Your task to perform on an android device: toggle pop-ups in chrome Image 0: 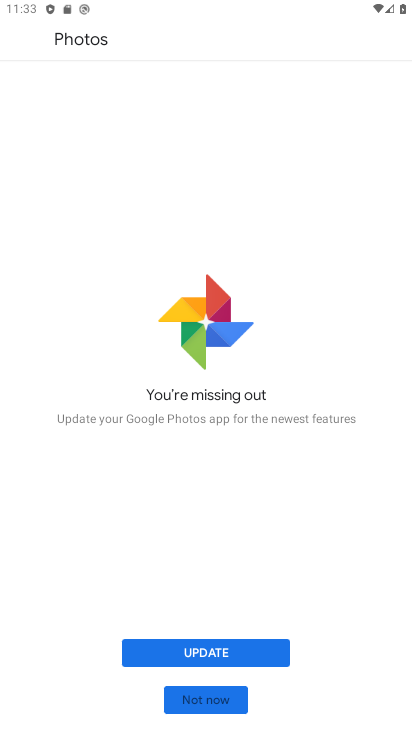
Step 0: press home button
Your task to perform on an android device: toggle pop-ups in chrome Image 1: 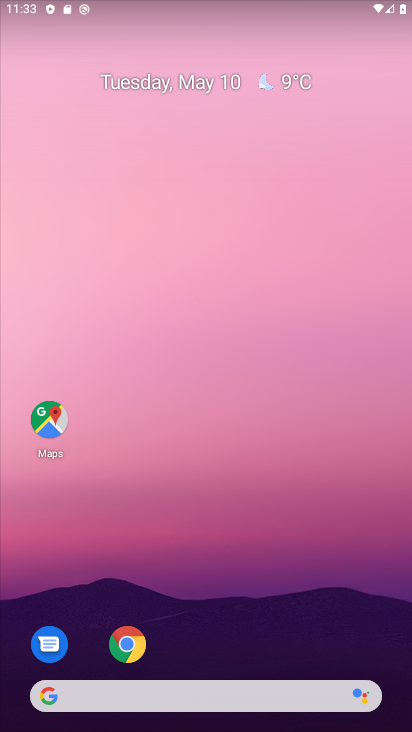
Step 1: click (134, 640)
Your task to perform on an android device: toggle pop-ups in chrome Image 2: 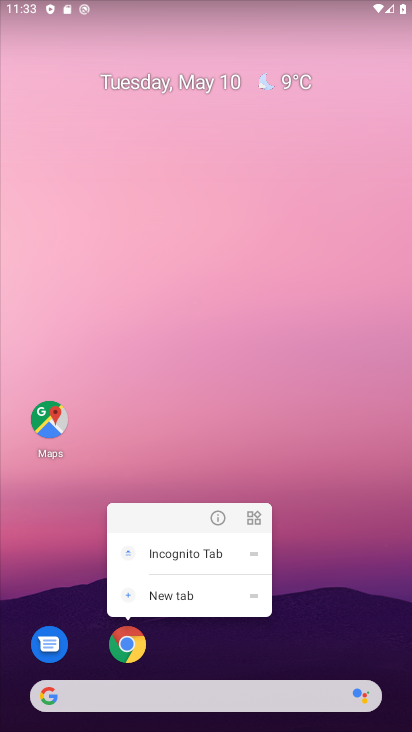
Step 2: click (142, 646)
Your task to perform on an android device: toggle pop-ups in chrome Image 3: 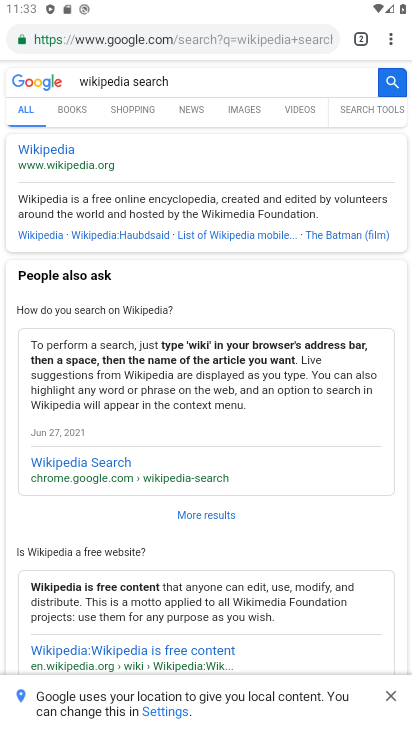
Step 3: click (392, 38)
Your task to perform on an android device: toggle pop-ups in chrome Image 4: 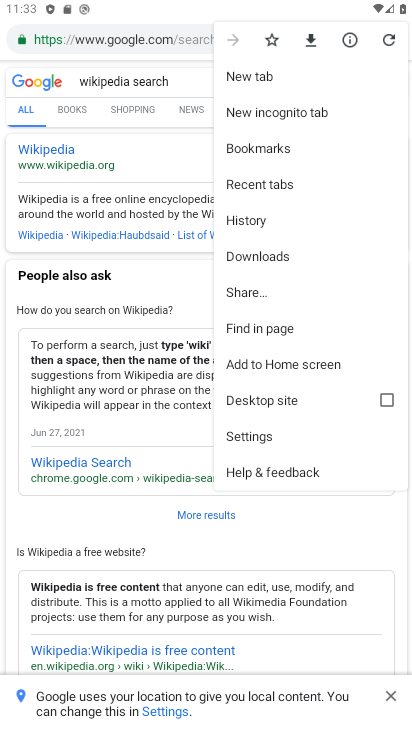
Step 4: click (257, 440)
Your task to perform on an android device: toggle pop-ups in chrome Image 5: 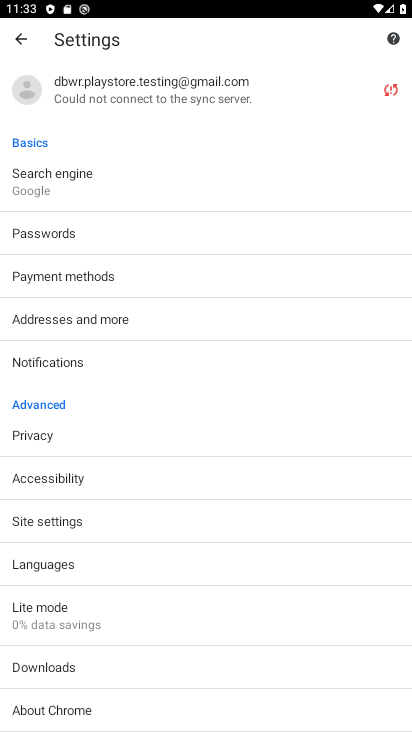
Step 5: click (72, 524)
Your task to perform on an android device: toggle pop-ups in chrome Image 6: 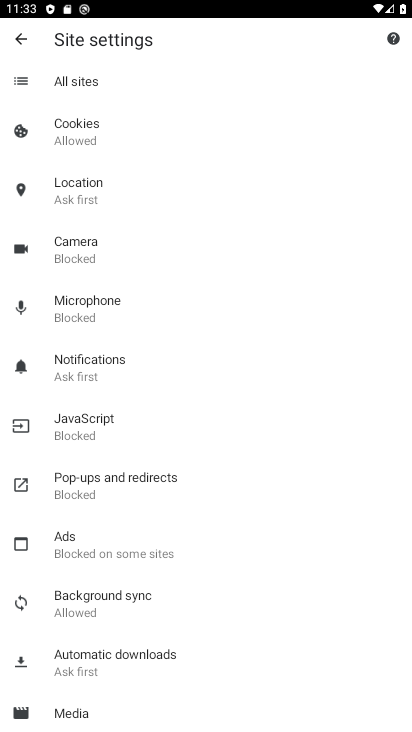
Step 6: click (89, 493)
Your task to perform on an android device: toggle pop-ups in chrome Image 7: 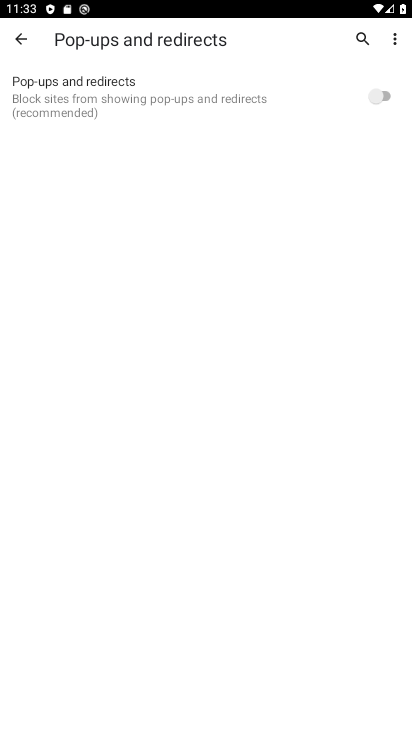
Step 7: click (371, 98)
Your task to perform on an android device: toggle pop-ups in chrome Image 8: 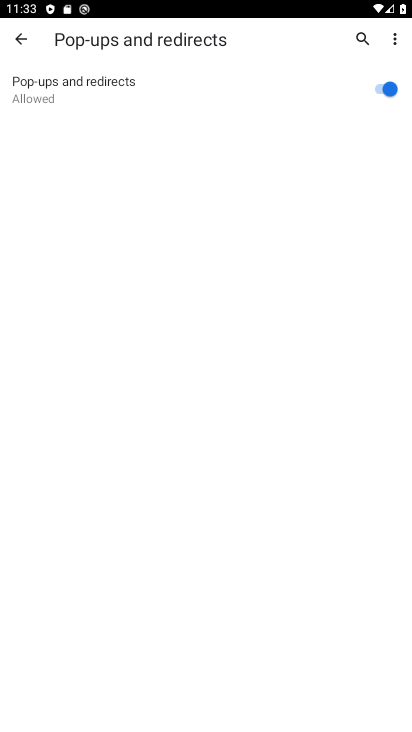
Step 8: task complete